Your task to perform on an android device: add a contact in the contacts app Image 0: 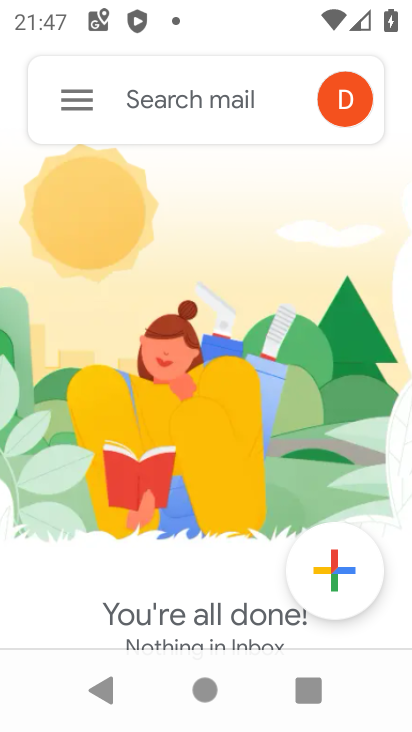
Step 0: press home button
Your task to perform on an android device: add a contact in the contacts app Image 1: 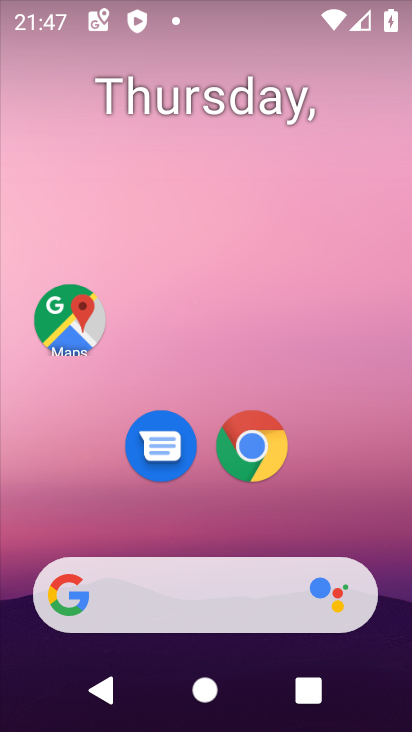
Step 1: drag from (324, 497) to (345, 143)
Your task to perform on an android device: add a contact in the contacts app Image 2: 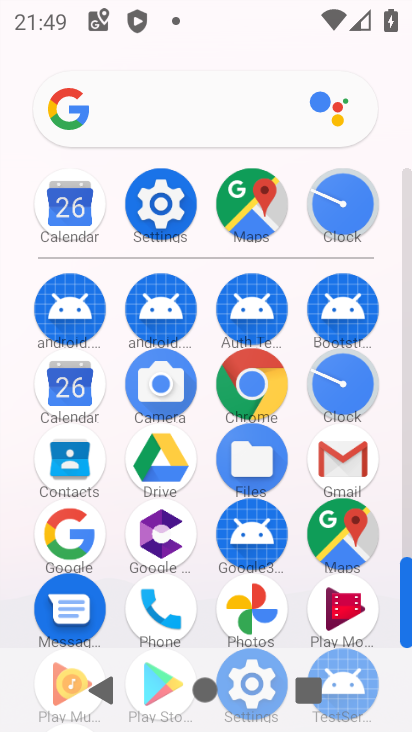
Step 2: drag from (405, 616) to (411, 671)
Your task to perform on an android device: add a contact in the contacts app Image 3: 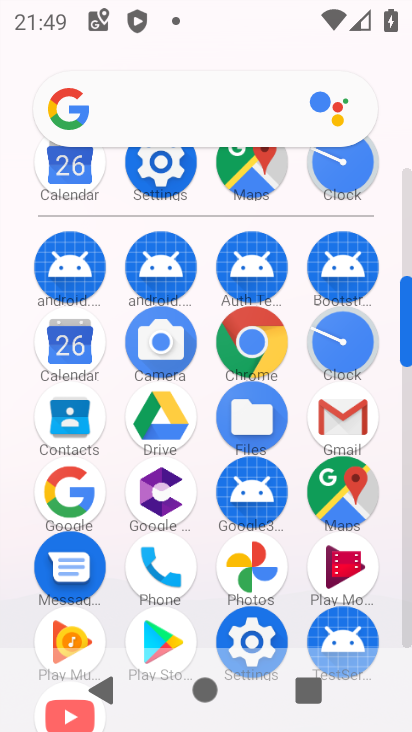
Step 3: click (407, 641)
Your task to perform on an android device: add a contact in the contacts app Image 4: 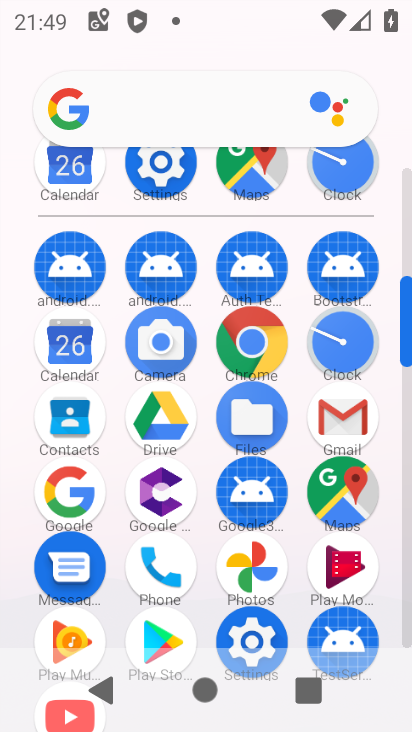
Step 4: click (407, 641)
Your task to perform on an android device: add a contact in the contacts app Image 5: 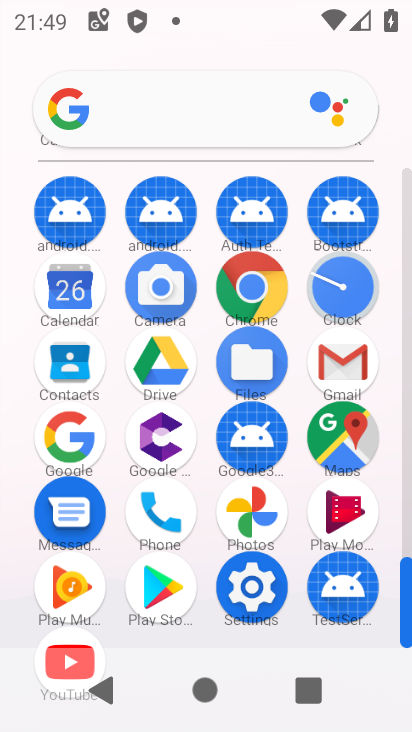
Step 5: click (407, 641)
Your task to perform on an android device: add a contact in the contacts app Image 6: 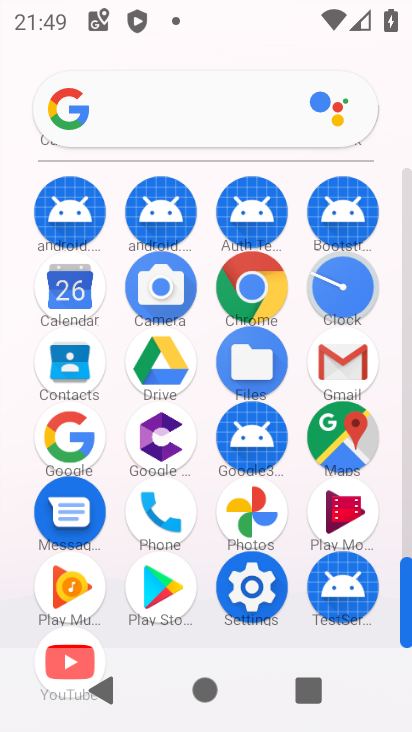
Step 6: click (407, 641)
Your task to perform on an android device: add a contact in the contacts app Image 7: 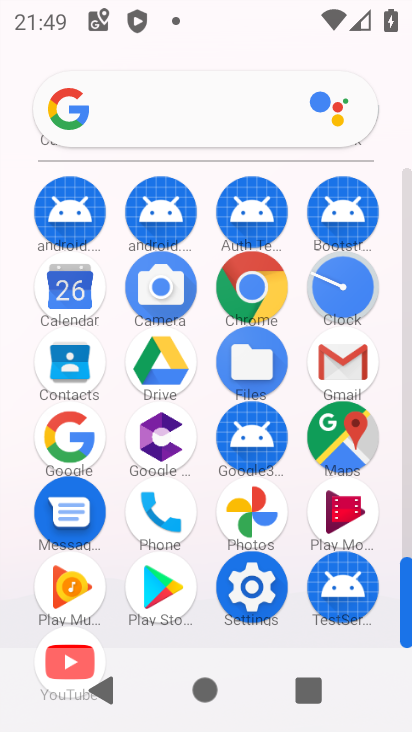
Step 7: click (407, 641)
Your task to perform on an android device: add a contact in the contacts app Image 8: 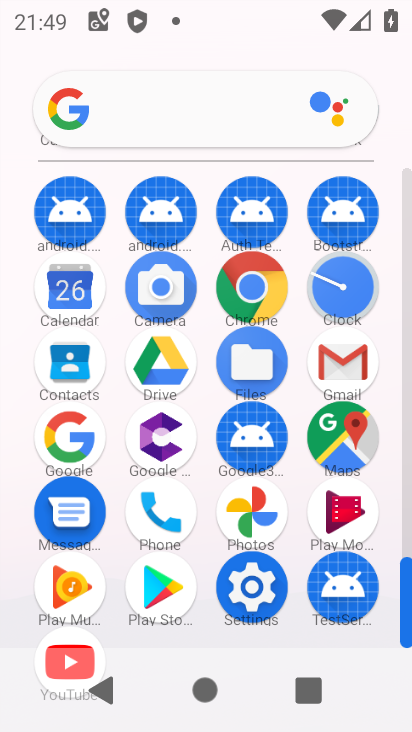
Step 8: click (407, 641)
Your task to perform on an android device: add a contact in the contacts app Image 9: 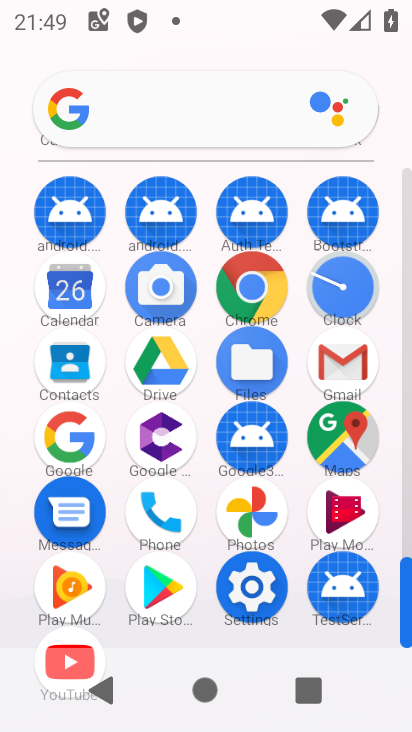
Step 9: click (59, 351)
Your task to perform on an android device: add a contact in the contacts app Image 10: 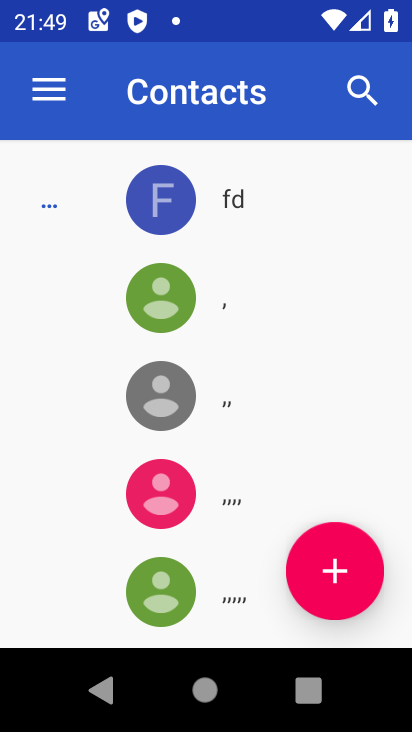
Step 10: click (342, 563)
Your task to perform on an android device: add a contact in the contacts app Image 11: 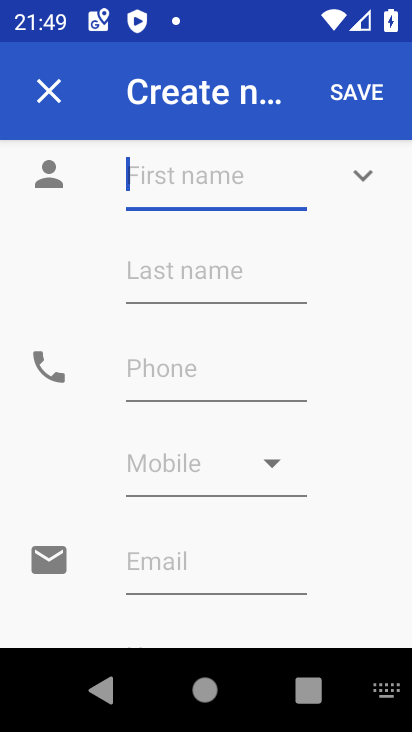
Step 11: type "sderty"
Your task to perform on an android device: add a contact in the contacts app Image 12: 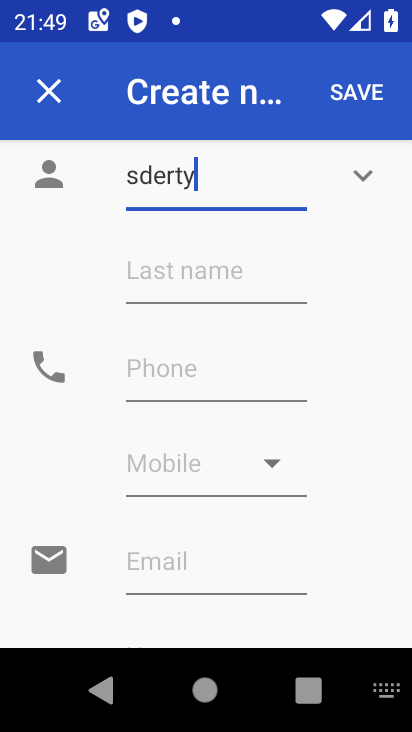
Step 12: click (185, 354)
Your task to perform on an android device: add a contact in the contacts app Image 13: 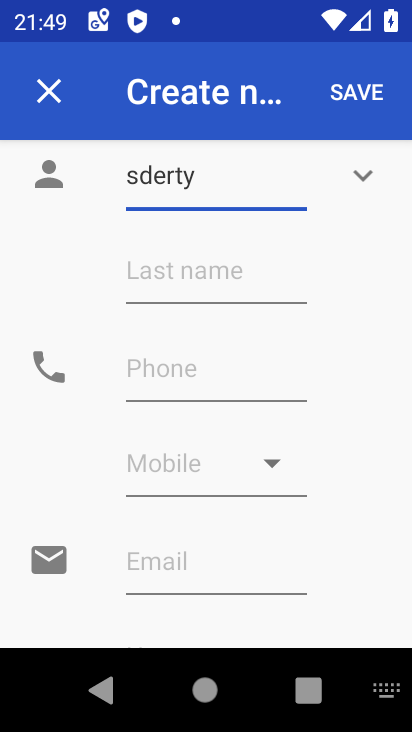
Step 13: click (185, 354)
Your task to perform on an android device: add a contact in the contacts app Image 14: 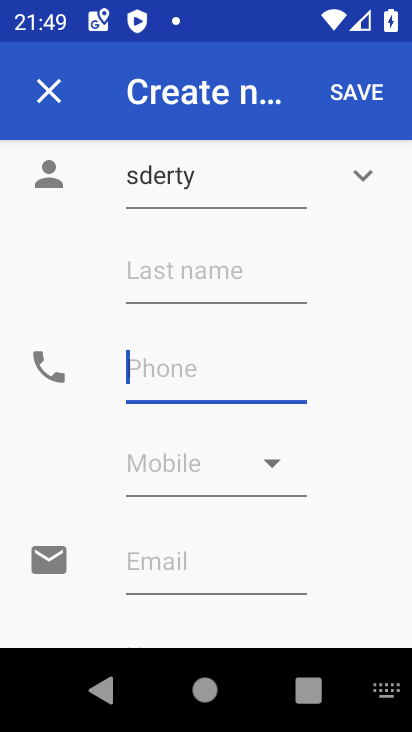
Step 14: click (185, 354)
Your task to perform on an android device: add a contact in the contacts app Image 15: 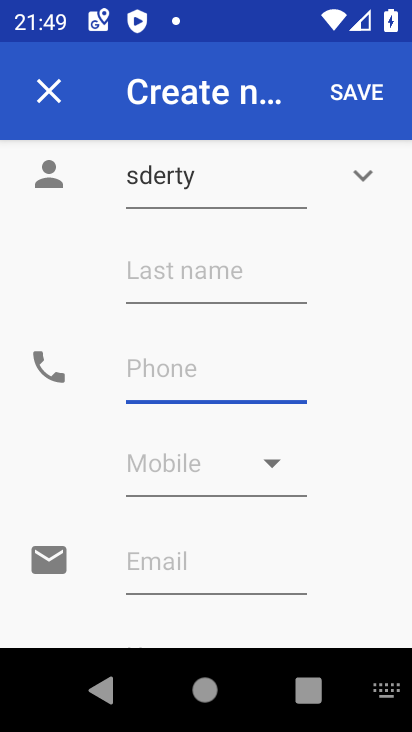
Step 15: click (185, 354)
Your task to perform on an android device: add a contact in the contacts app Image 16: 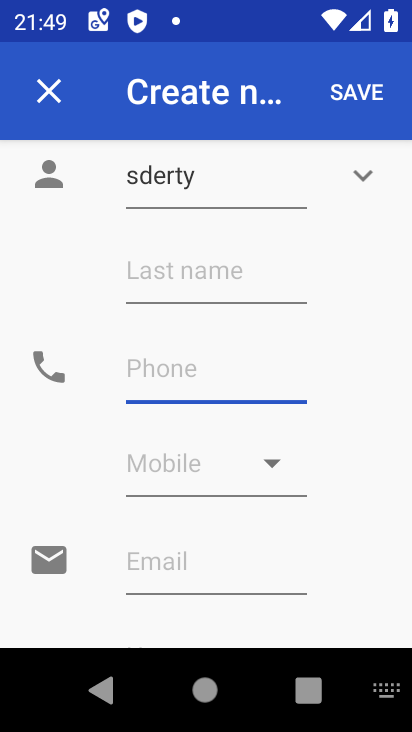
Step 16: click (185, 354)
Your task to perform on an android device: add a contact in the contacts app Image 17: 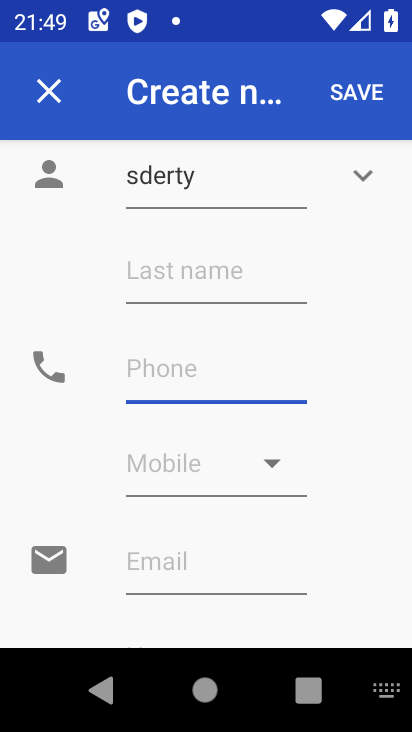
Step 17: type "111"
Your task to perform on an android device: add a contact in the contacts app Image 18: 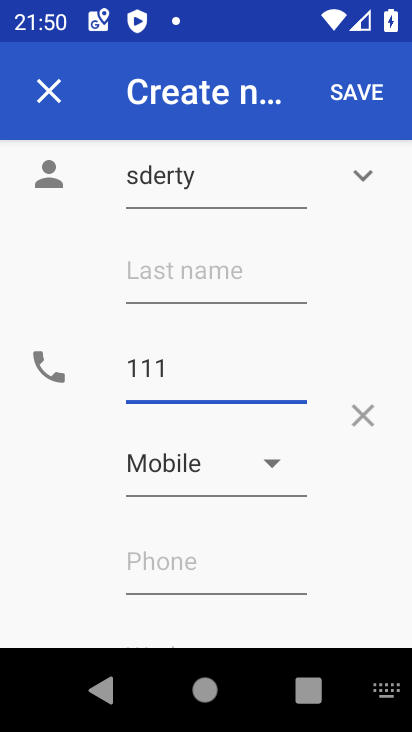
Step 18: click (359, 90)
Your task to perform on an android device: add a contact in the contacts app Image 19: 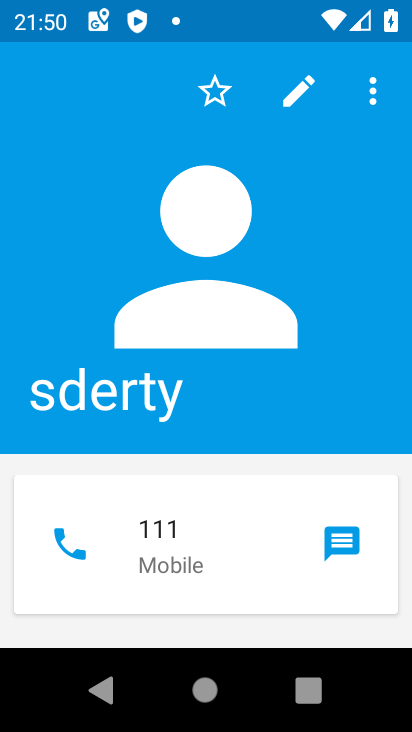
Step 19: task complete